Your task to perform on an android device: Add macbook pro 15 inch to the cart on amazon.com Image 0: 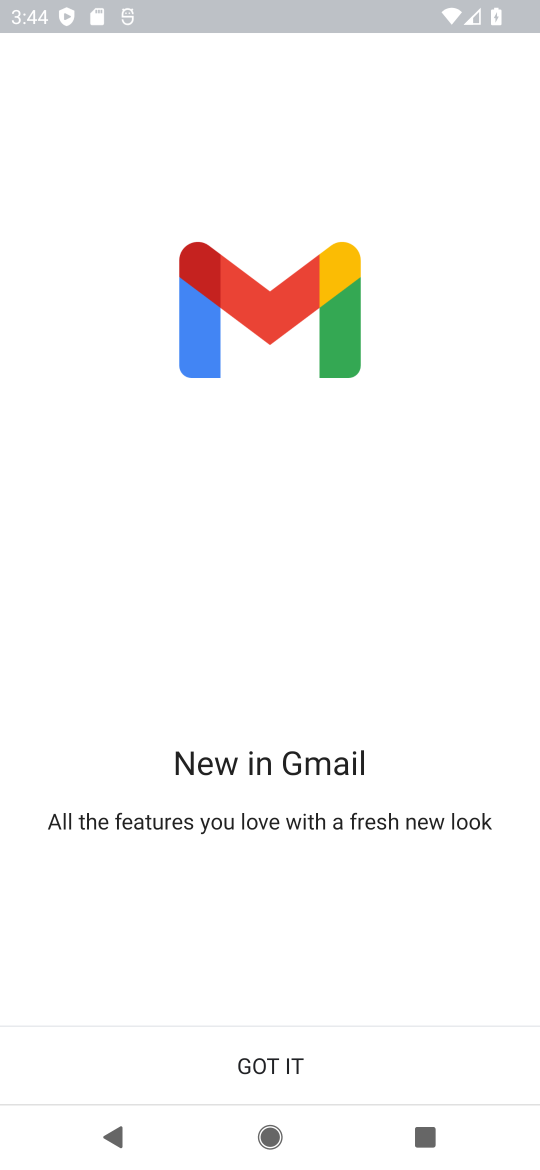
Step 0: press home button
Your task to perform on an android device: Add macbook pro 15 inch to the cart on amazon.com Image 1: 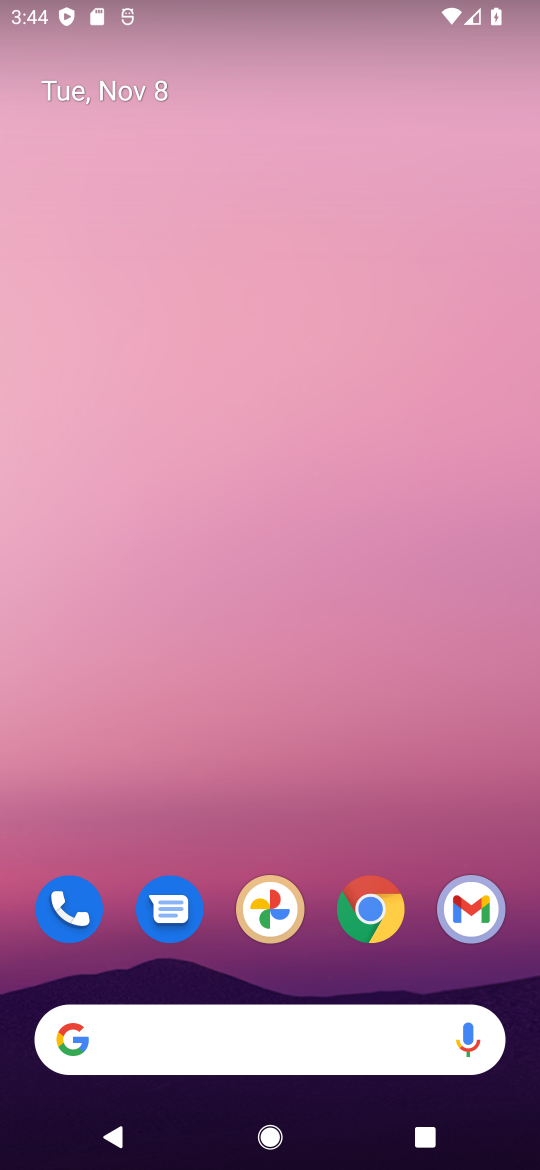
Step 1: click (379, 891)
Your task to perform on an android device: Add macbook pro 15 inch to the cart on amazon.com Image 2: 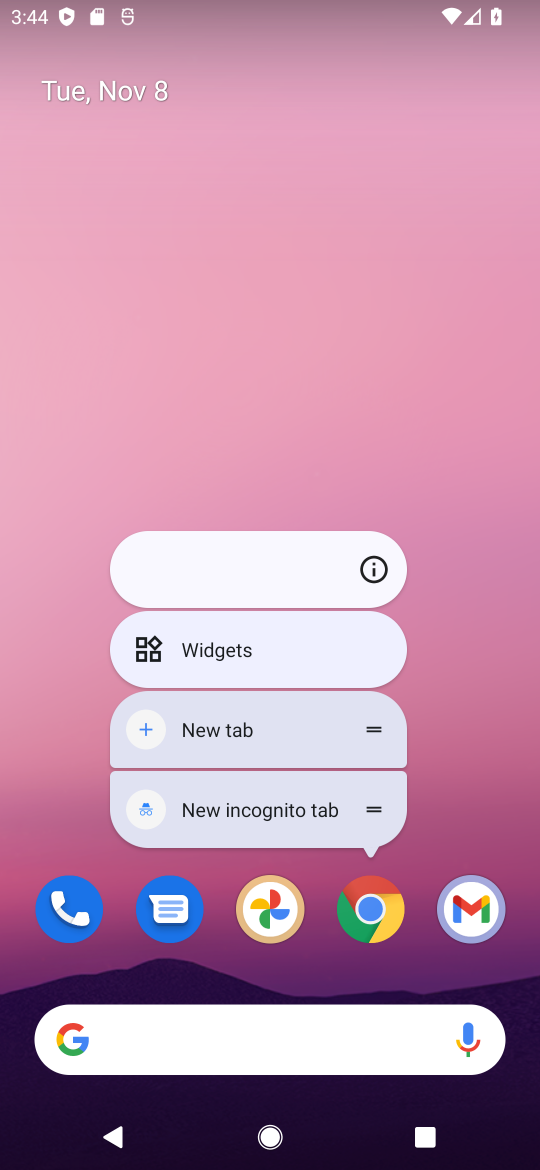
Step 2: click (368, 925)
Your task to perform on an android device: Add macbook pro 15 inch to the cart on amazon.com Image 3: 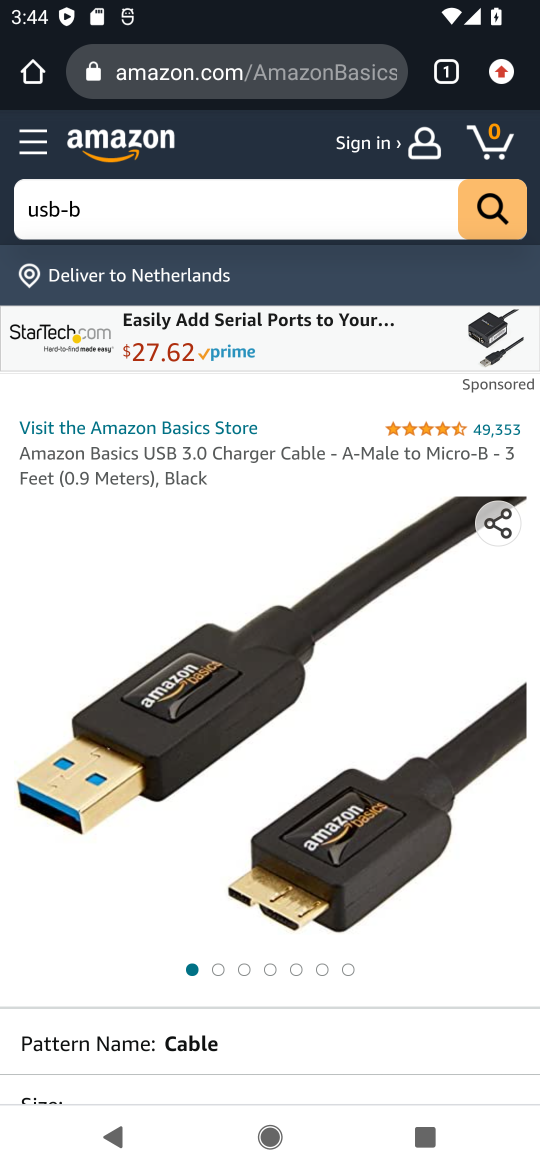
Step 3: click (308, 204)
Your task to perform on an android device: Add macbook pro 15 inch to the cart on amazon.com Image 4: 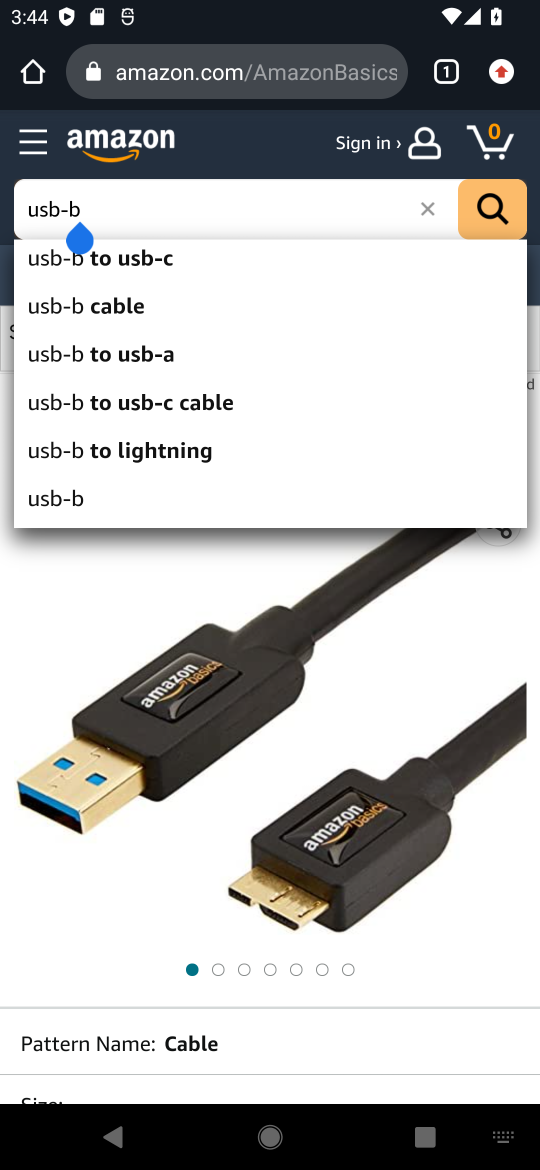
Step 4: click (423, 205)
Your task to perform on an android device: Add macbook pro 15 inch to the cart on amazon.com Image 5: 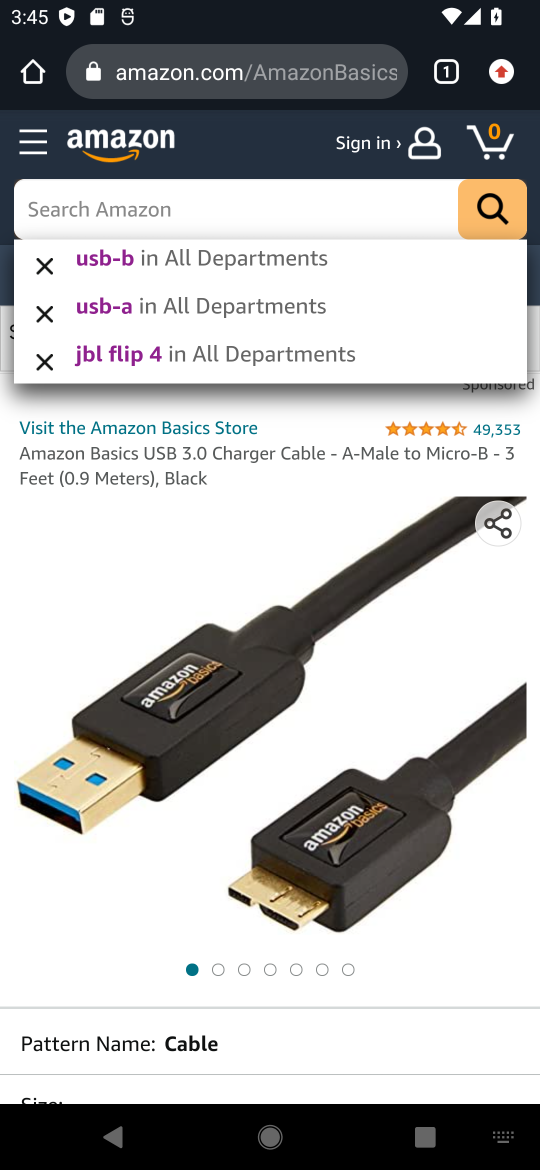
Step 5: press enter
Your task to perform on an android device: Add macbook pro 15 inch to the cart on amazon.com Image 6: 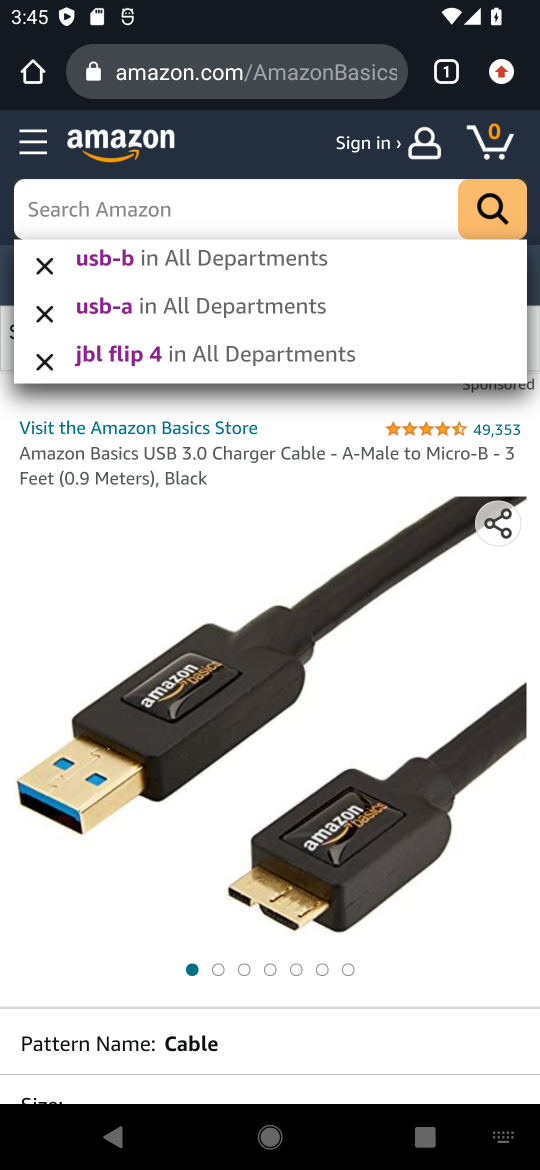
Step 6: type "macbook pro 15 inch"
Your task to perform on an android device: Add macbook pro 15 inch to the cart on amazon.com Image 7: 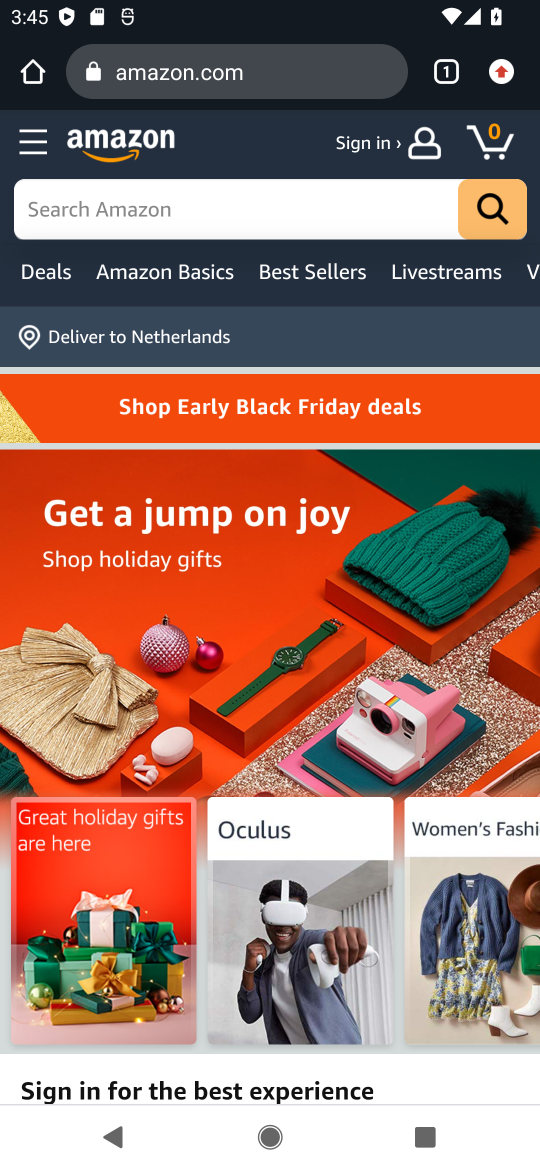
Step 7: click (143, 1118)
Your task to perform on an android device: Add macbook pro 15 inch to the cart on amazon.com Image 8: 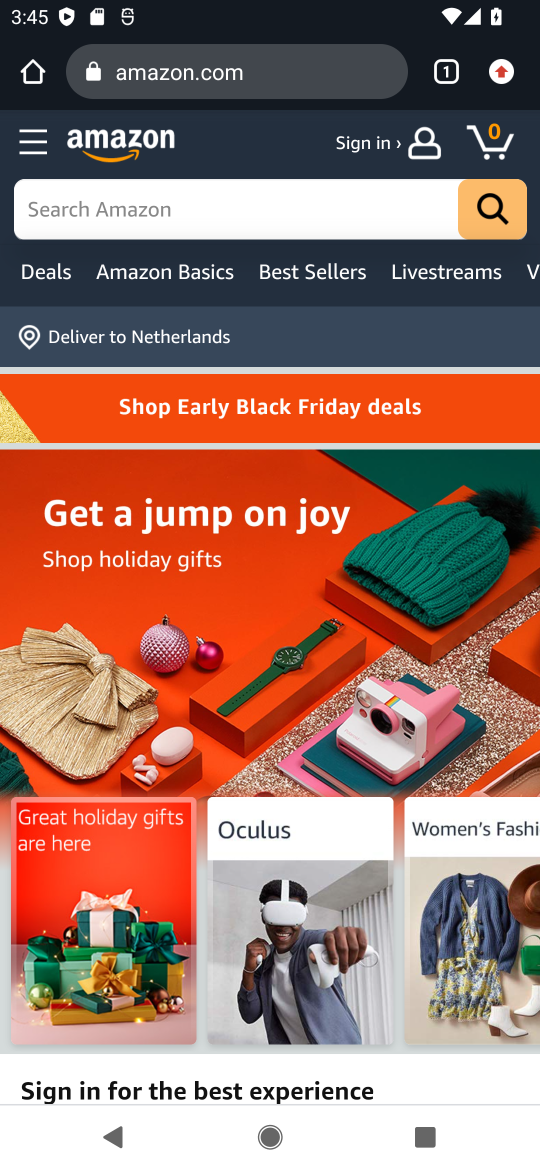
Step 8: click (383, 209)
Your task to perform on an android device: Add macbook pro 15 inch to the cart on amazon.com Image 9: 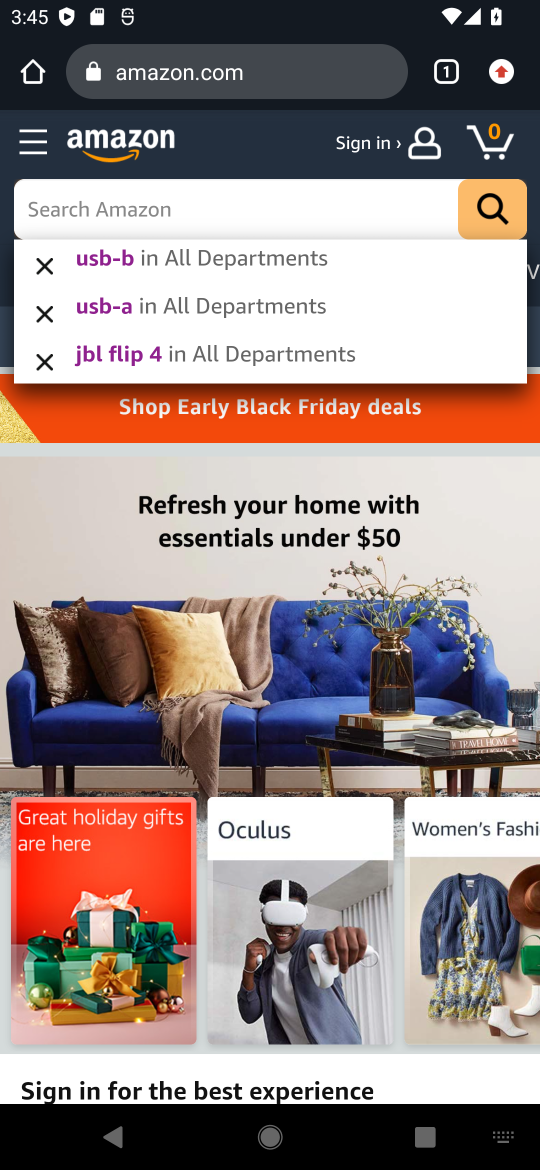
Step 9: click (60, 211)
Your task to perform on an android device: Add macbook pro 15 inch to the cart on amazon.com Image 10: 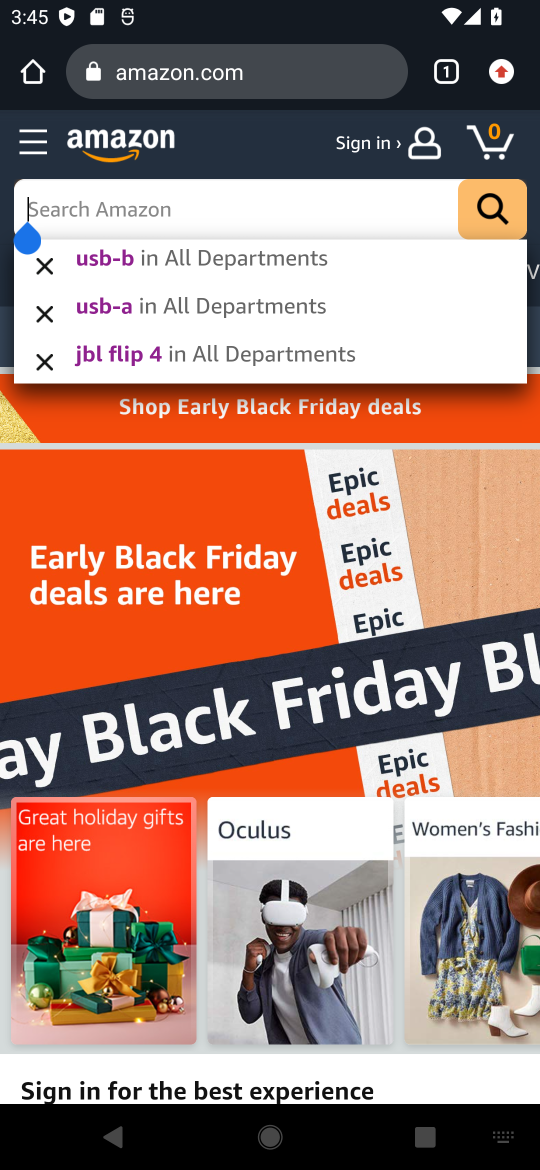
Step 10: type "macbook pro 15 inch "
Your task to perform on an android device: Add macbook pro 15 inch to the cart on amazon.com Image 11: 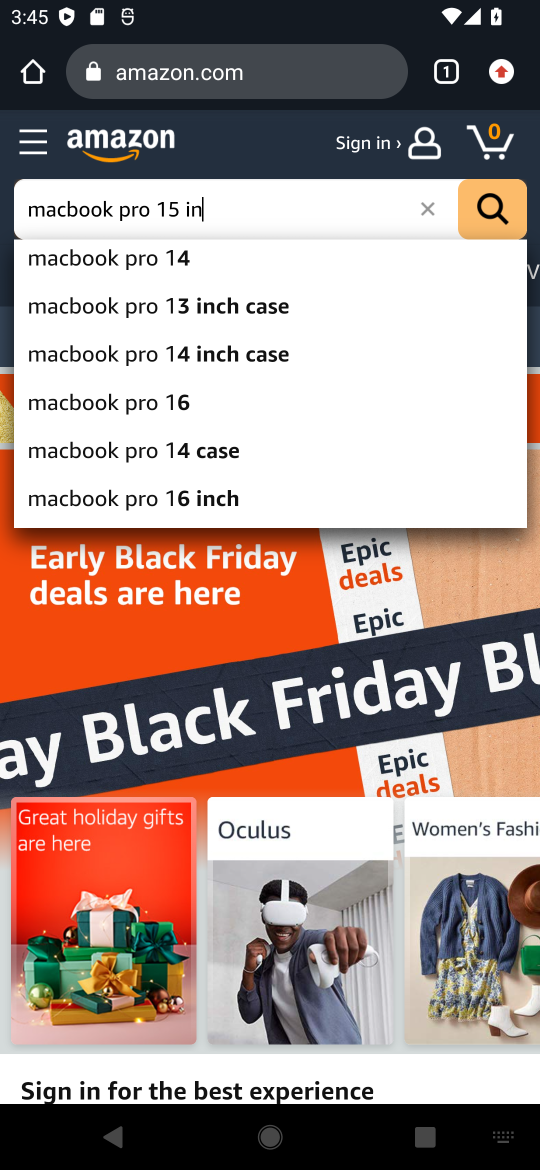
Step 11: press enter
Your task to perform on an android device: Add macbook pro 15 inch to the cart on amazon.com Image 12: 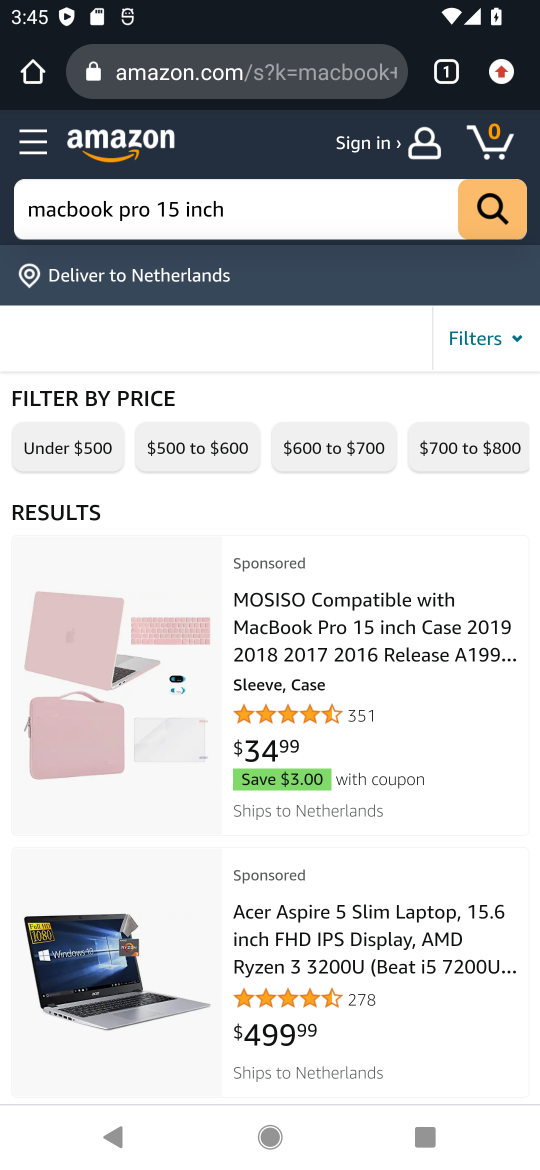
Step 12: click (366, 613)
Your task to perform on an android device: Add macbook pro 15 inch to the cart on amazon.com Image 13: 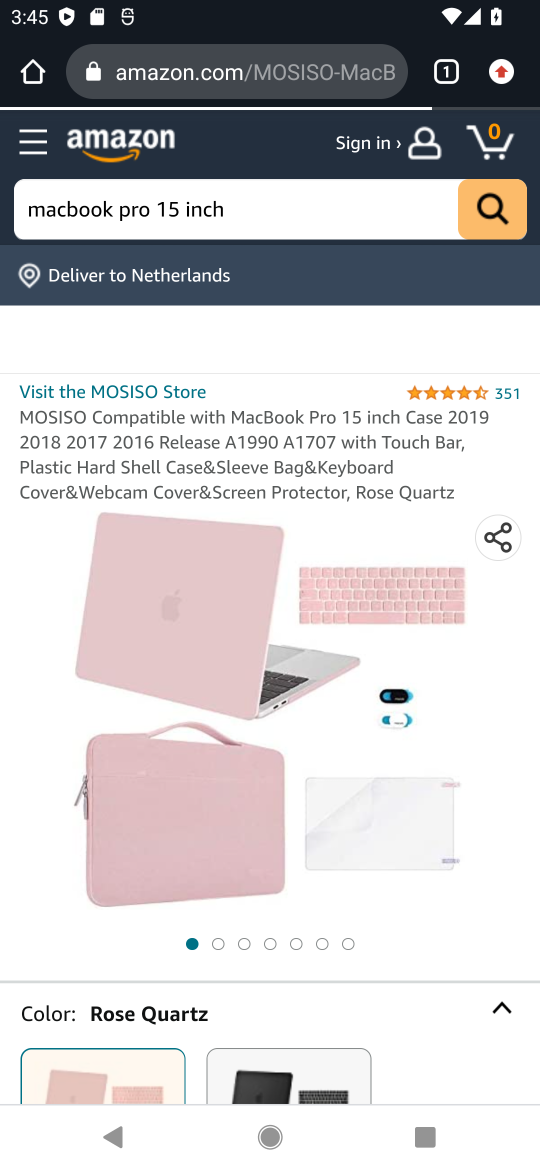
Step 13: drag from (304, 868) to (472, 314)
Your task to perform on an android device: Add macbook pro 15 inch to the cart on amazon.com Image 14: 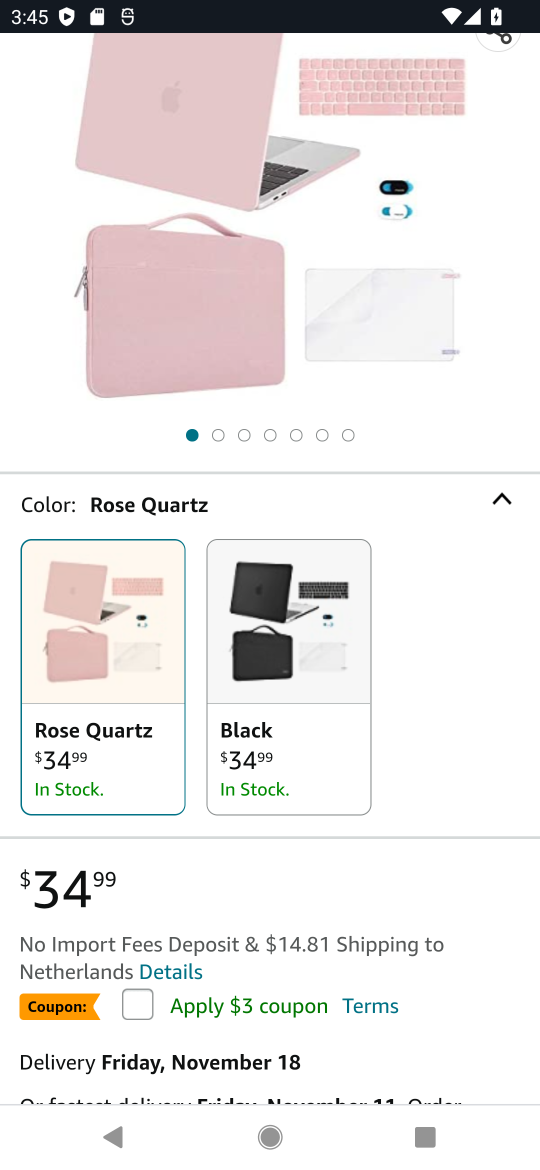
Step 14: drag from (254, 920) to (411, 293)
Your task to perform on an android device: Add macbook pro 15 inch to the cart on amazon.com Image 15: 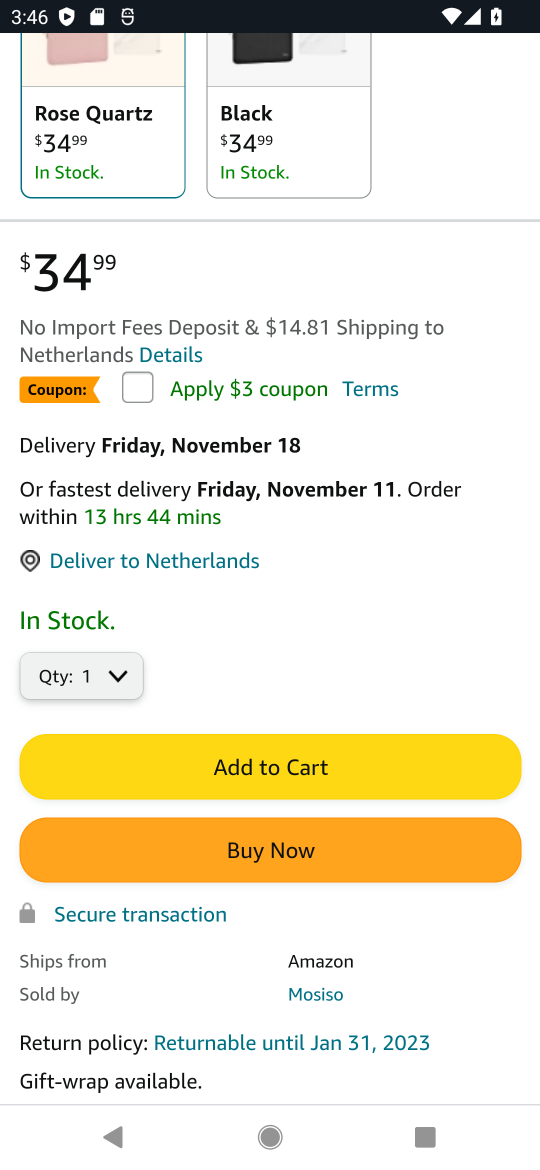
Step 15: click (273, 766)
Your task to perform on an android device: Add macbook pro 15 inch to the cart on amazon.com Image 16: 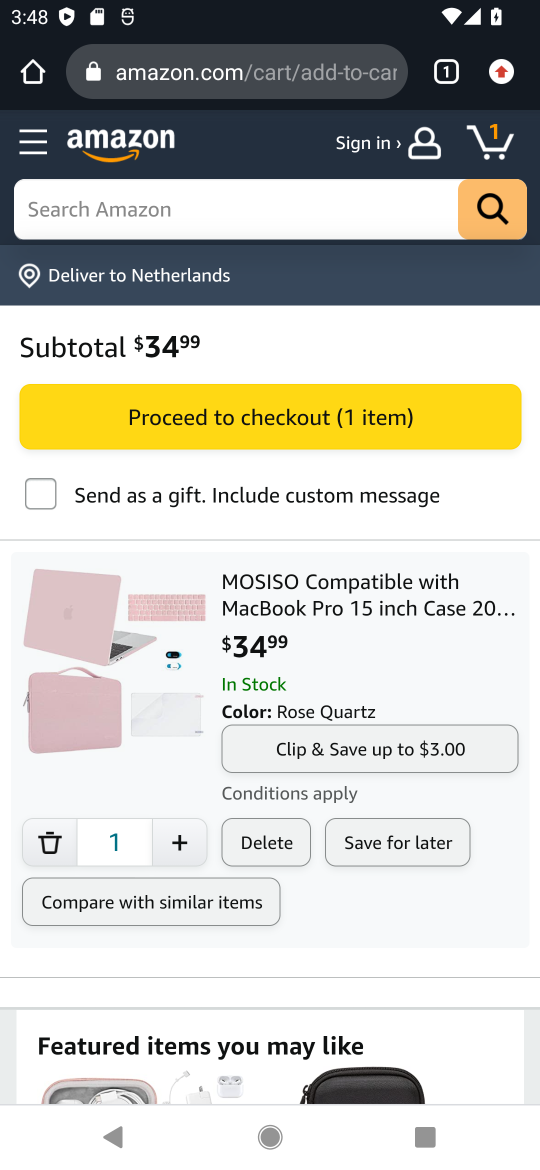
Step 16: task complete